Your task to perform on an android device: Open Chrome and go to the settings page Image 0: 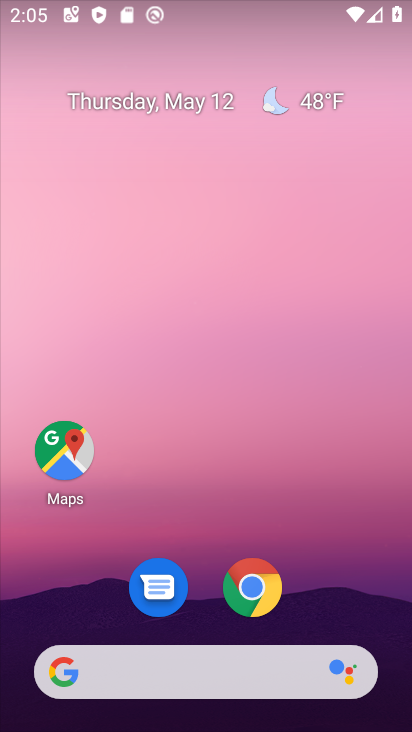
Step 0: drag from (254, 650) to (254, 267)
Your task to perform on an android device: Open Chrome and go to the settings page Image 1: 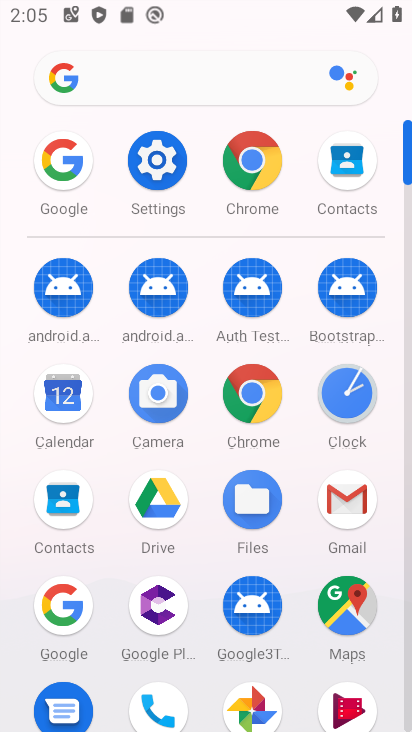
Step 1: click (253, 204)
Your task to perform on an android device: Open Chrome and go to the settings page Image 2: 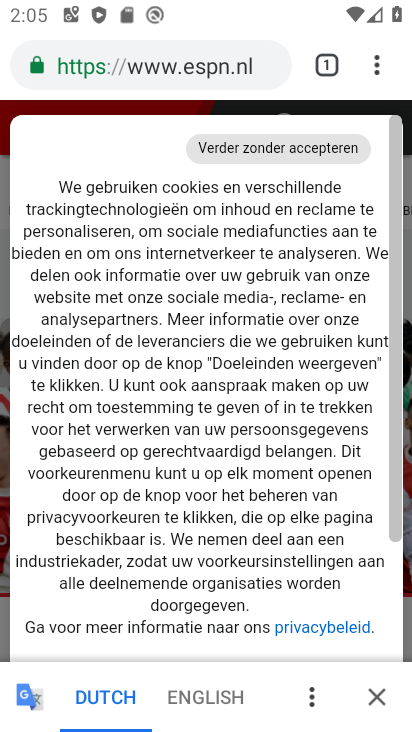
Step 2: click (386, 88)
Your task to perform on an android device: Open Chrome and go to the settings page Image 3: 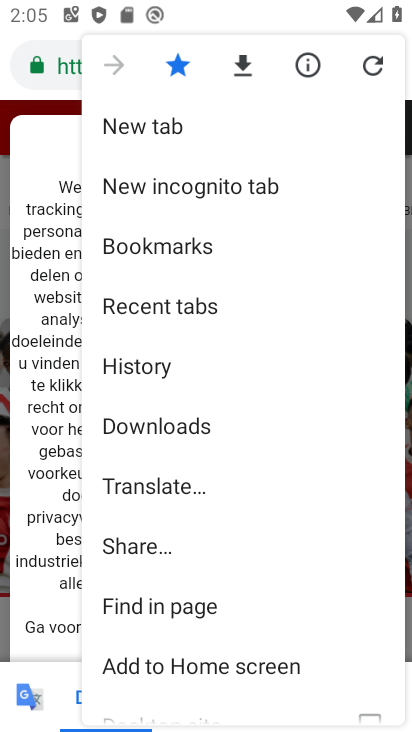
Step 3: drag from (241, 544) to (271, 276)
Your task to perform on an android device: Open Chrome and go to the settings page Image 4: 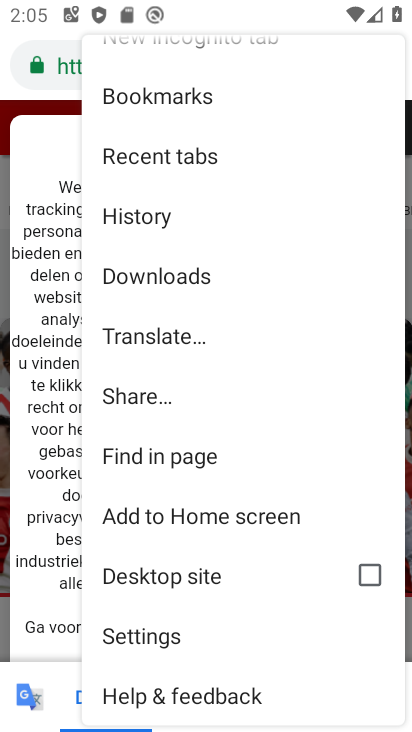
Step 4: click (200, 640)
Your task to perform on an android device: Open Chrome and go to the settings page Image 5: 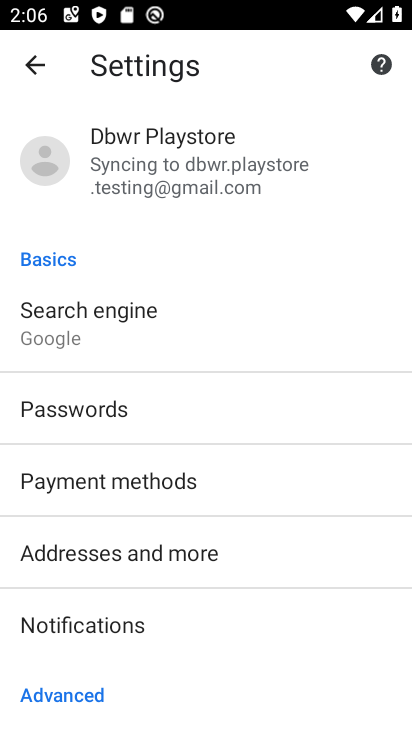
Step 5: task complete